Your task to perform on an android device: Open Chrome and go to the settings page Image 0: 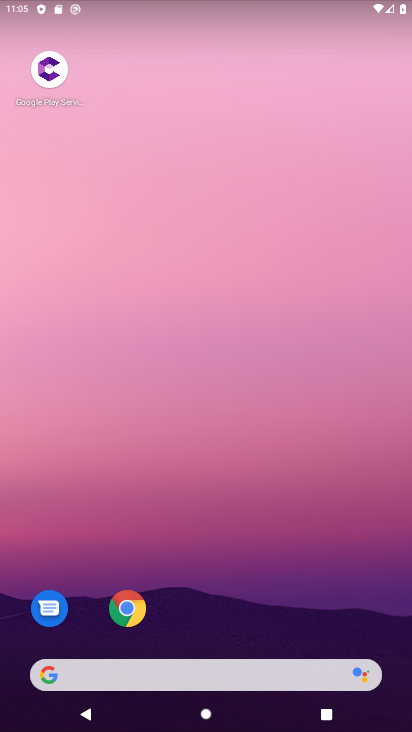
Step 0: click (129, 606)
Your task to perform on an android device: Open Chrome and go to the settings page Image 1: 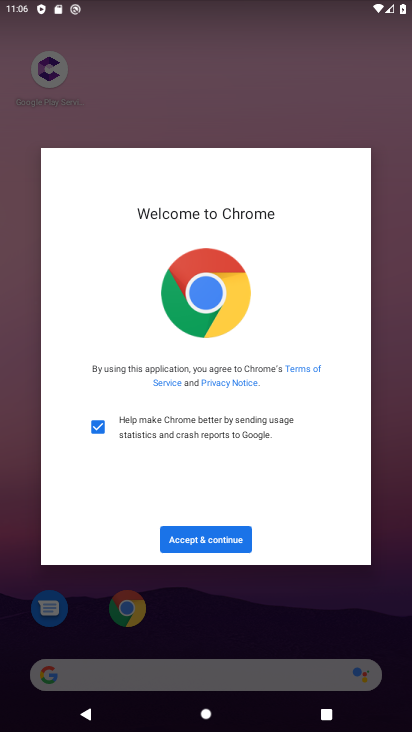
Step 1: click (207, 544)
Your task to perform on an android device: Open Chrome and go to the settings page Image 2: 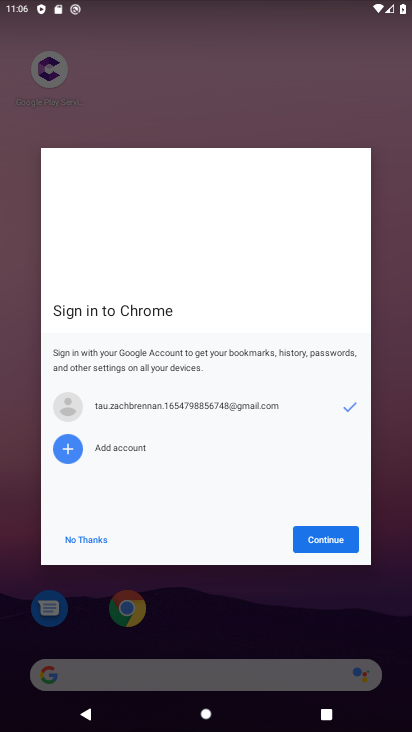
Step 2: click (77, 544)
Your task to perform on an android device: Open Chrome and go to the settings page Image 3: 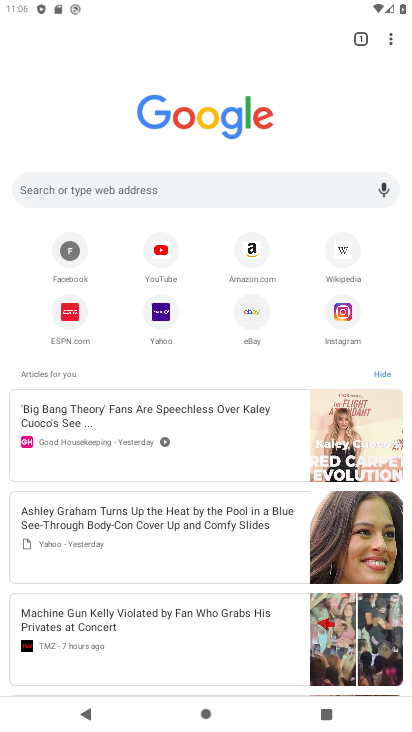
Step 3: task complete